Your task to perform on an android device: check data usage Image 0: 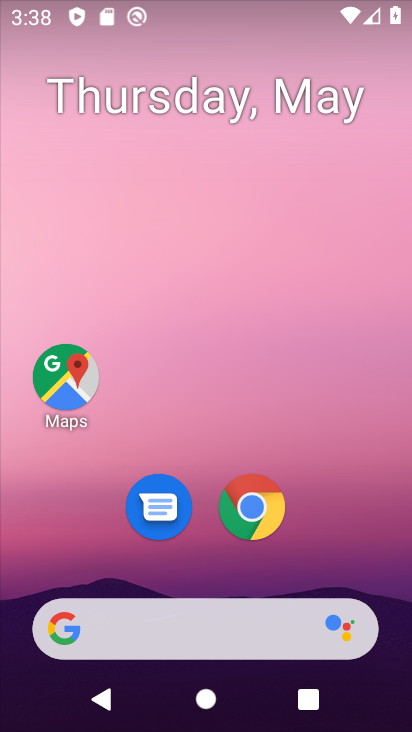
Step 0: drag from (205, 542) to (181, 15)
Your task to perform on an android device: check data usage Image 1: 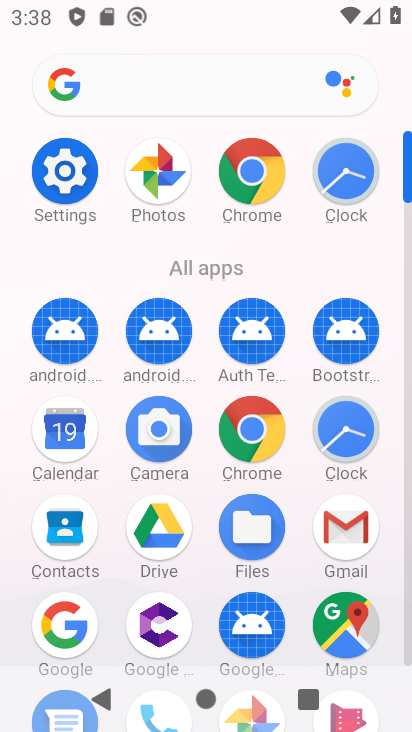
Step 1: click (69, 173)
Your task to perform on an android device: check data usage Image 2: 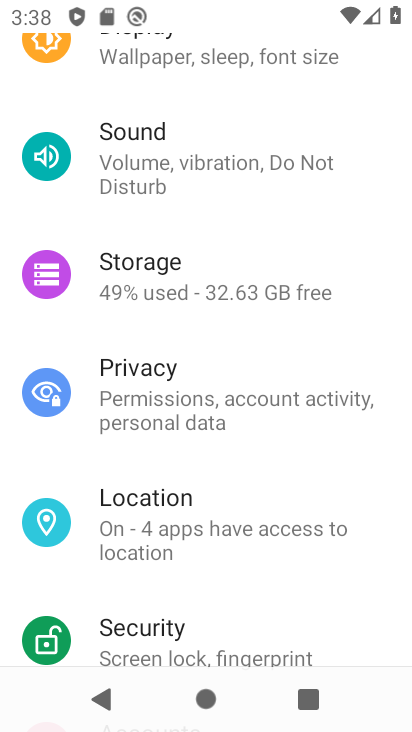
Step 2: drag from (160, 336) to (162, 705)
Your task to perform on an android device: check data usage Image 3: 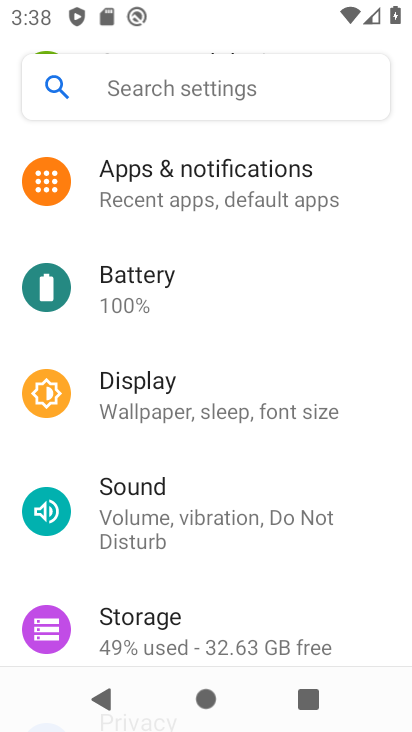
Step 3: drag from (152, 317) to (151, 618)
Your task to perform on an android device: check data usage Image 4: 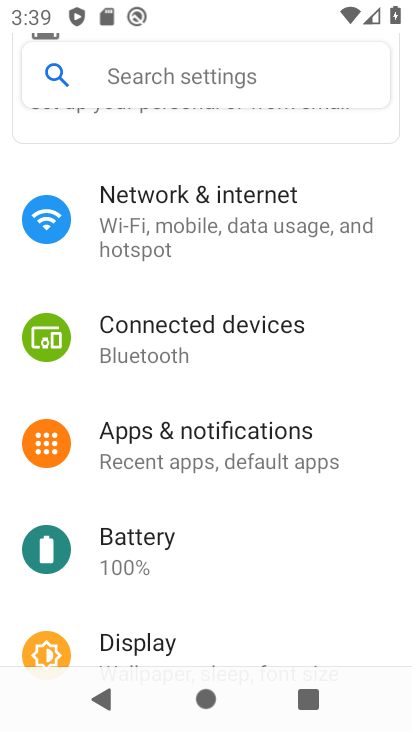
Step 4: click (131, 207)
Your task to perform on an android device: check data usage Image 5: 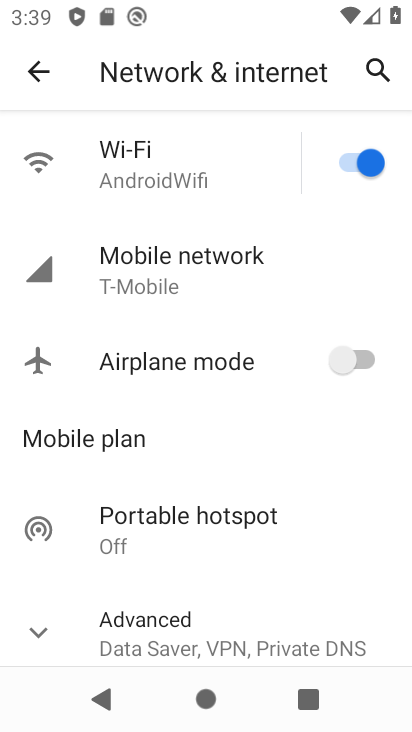
Step 5: click (111, 261)
Your task to perform on an android device: check data usage Image 6: 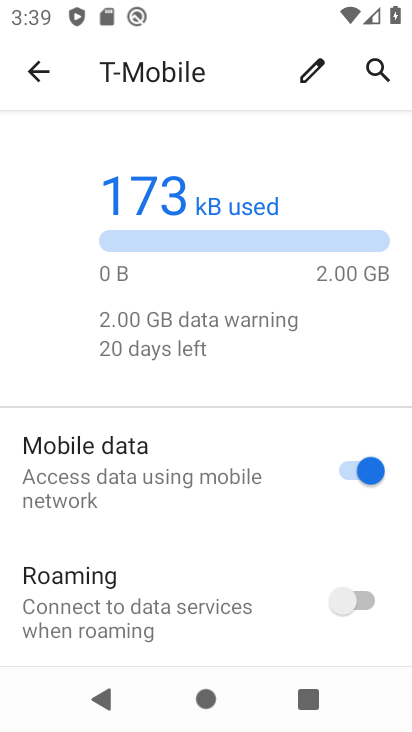
Step 6: drag from (121, 541) to (104, 253)
Your task to perform on an android device: check data usage Image 7: 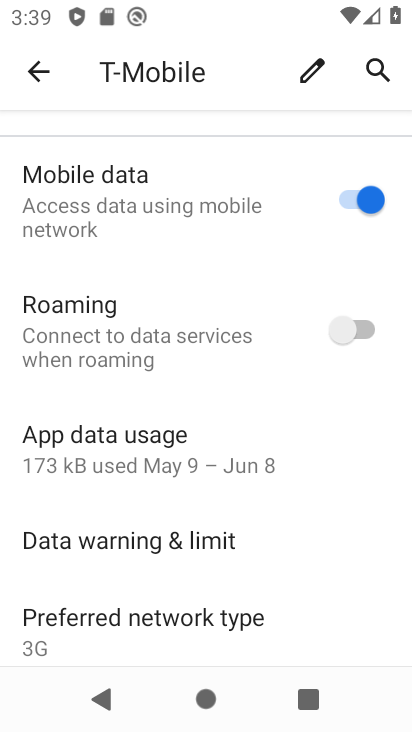
Step 7: click (84, 442)
Your task to perform on an android device: check data usage Image 8: 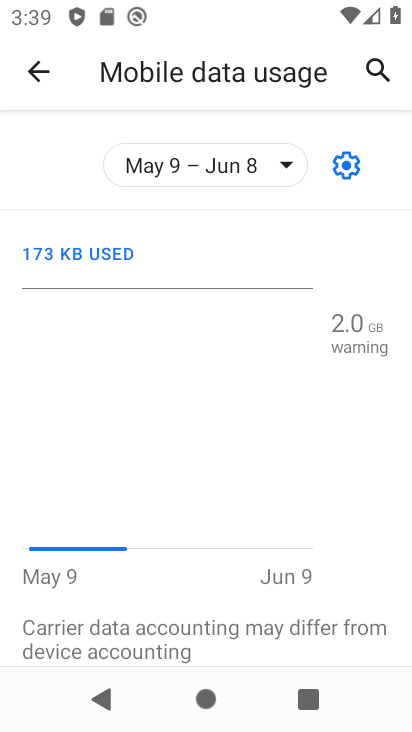
Step 8: task complete